Your task to perform on an android device: Open Chrome and go to settings Image 0: 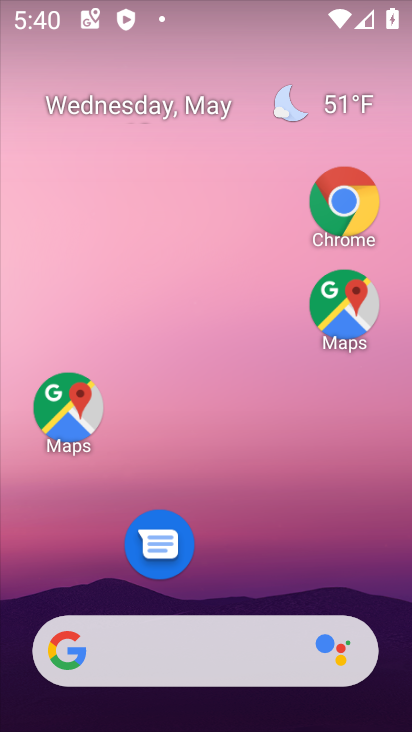
Step 0: click (335, 222)
Your task to perform on an android device: Open Chrome and go to settings Image 1: 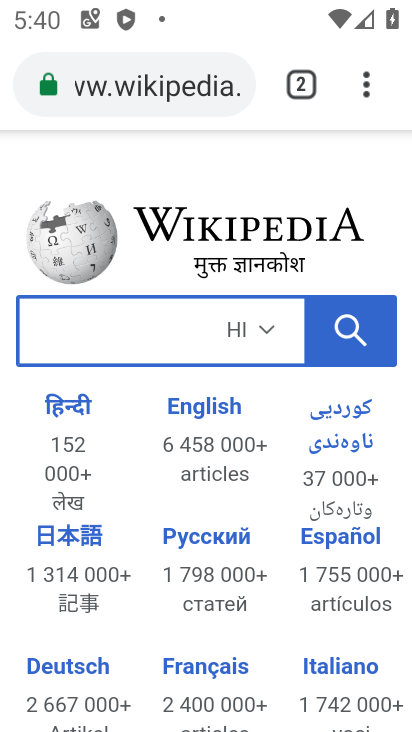
Step 1: click (359, 81)
Your task to perform on an android device: Open Chrome and go to settings Image 2: 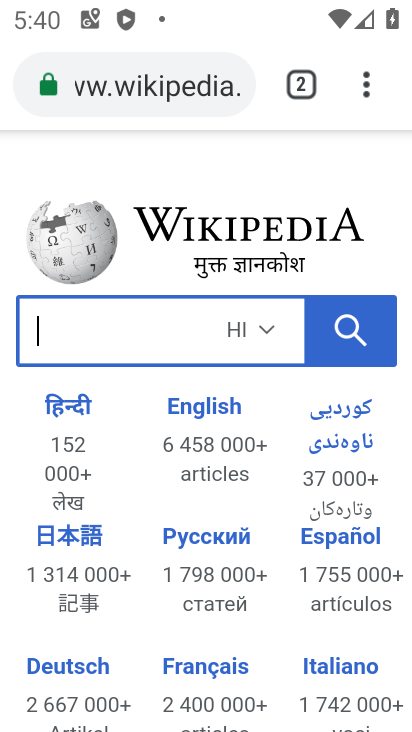
Step 2: click (369, 91)
Your task to perform on an android device: Open Chrome and go to settings Image 3: 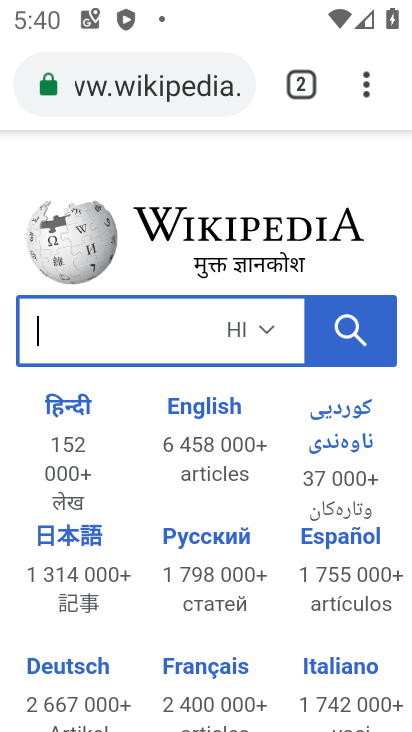
Step 3: click (366, 74)
Your task to perform on an android device: Open Chrome and go to settings Image 4: 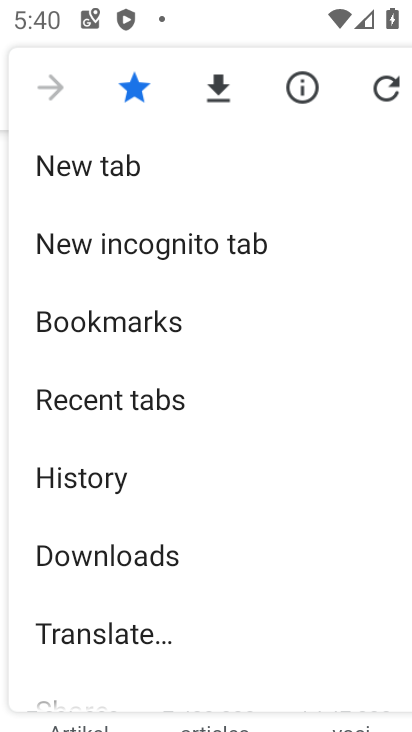
Step 4: drag from (203, 545) to (148, 201)
Your task to perform on an android device: Open Chrome and go to settings Image 5: 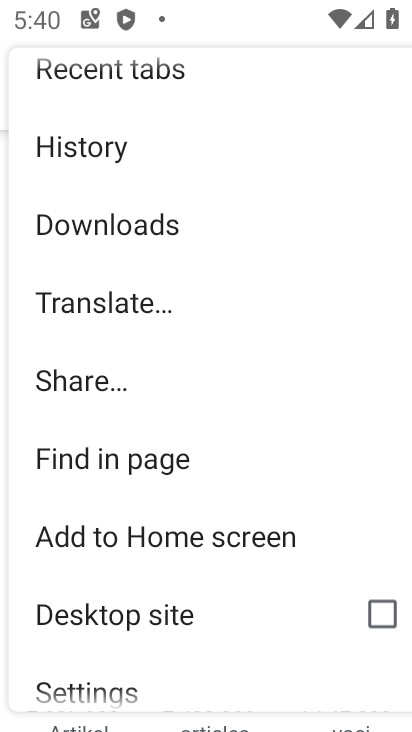
Step 5: click (108, 690)
Your task to perform on an android device: Open Chrome and go to settings Image 6: 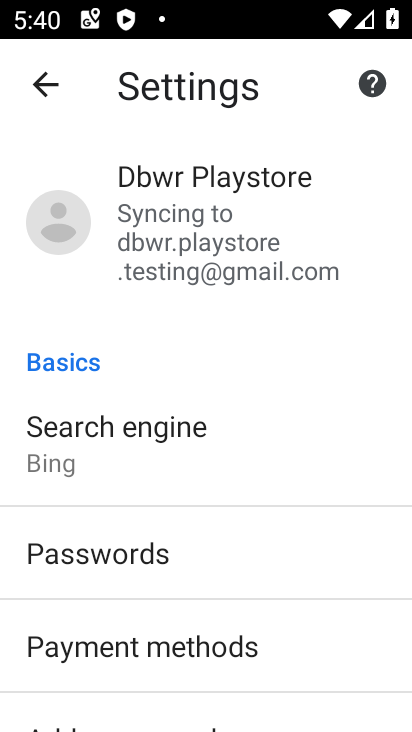
Step 6: task complete